Your task to perform on an android device: check battery use Image 0: 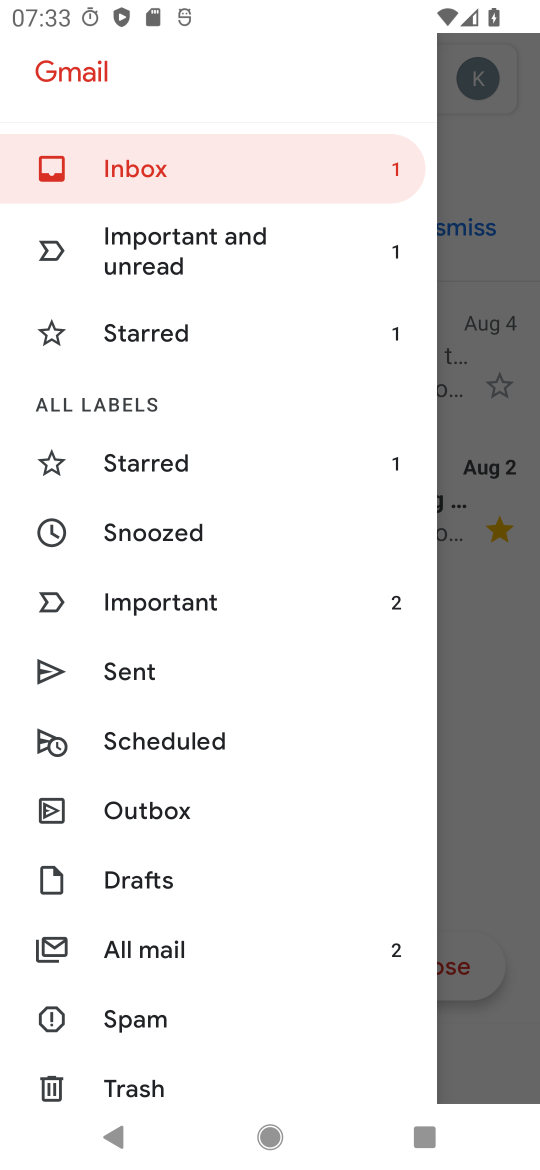
Step 0: press home button
Your task to perform on an android device: check battery use Image 1: 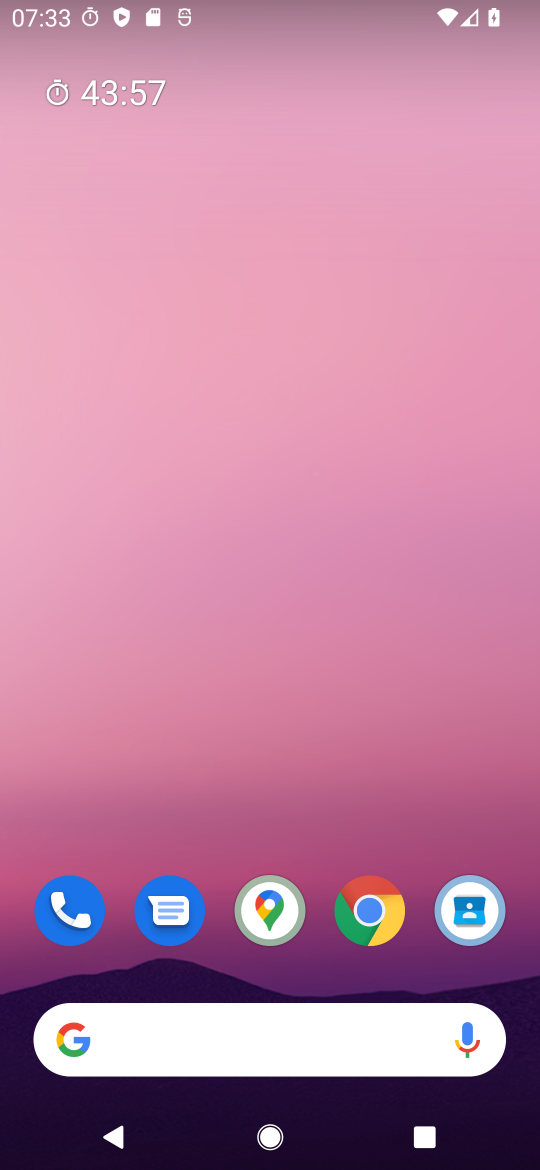
Step 1: drag from (381, 1012) to (108, 503)
Your task to perform on an android device: check battery use Image 2: 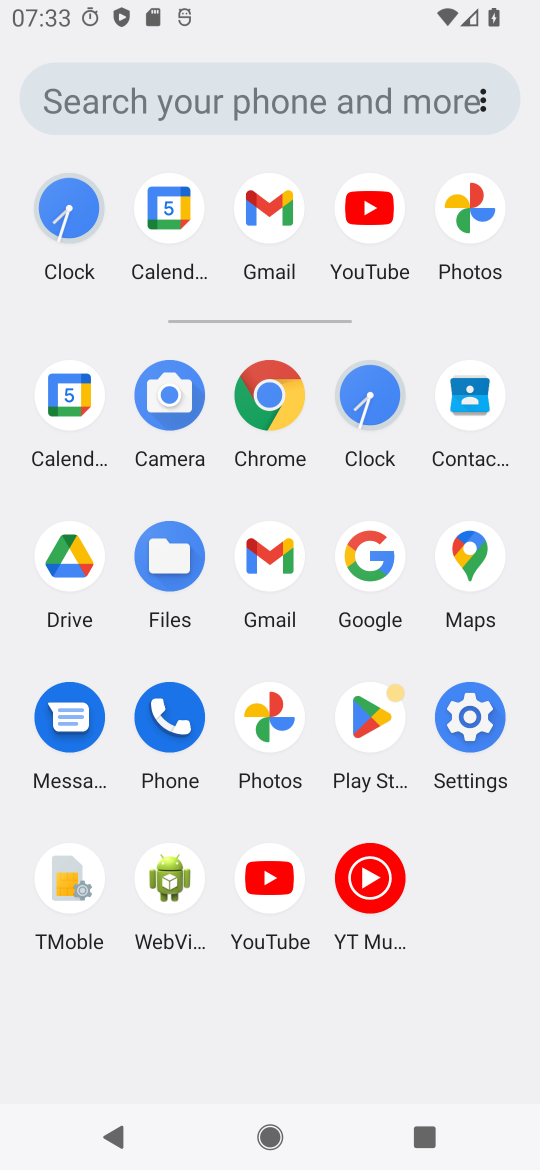
Step 2: click (468, 726)
Your task to perform on an android device: check battery use Image 3: 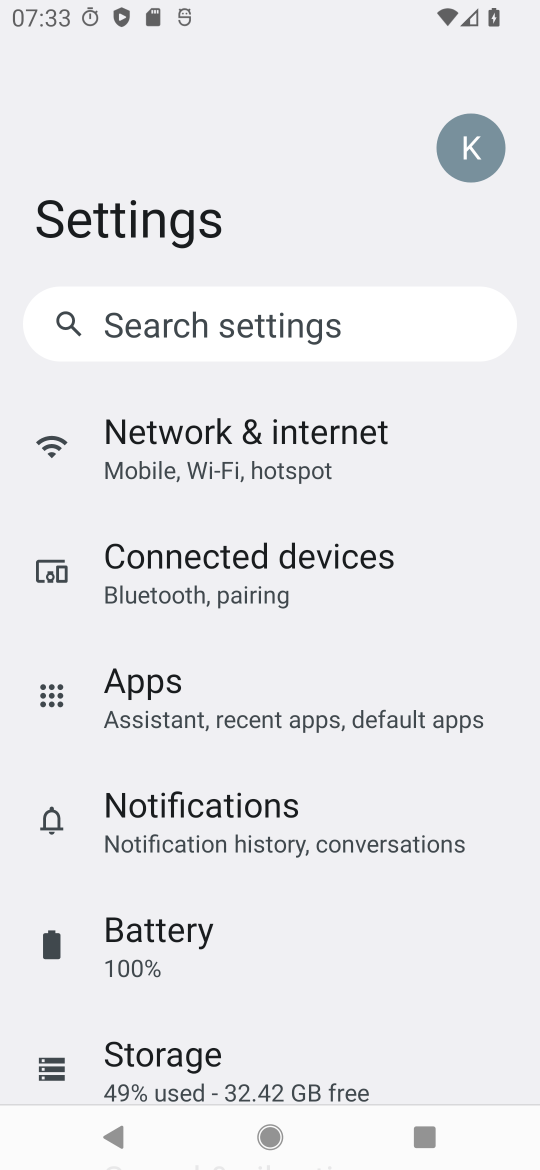
Step 3: click (160, 941)
Your task to perform on an android device: check battery use Image 4: 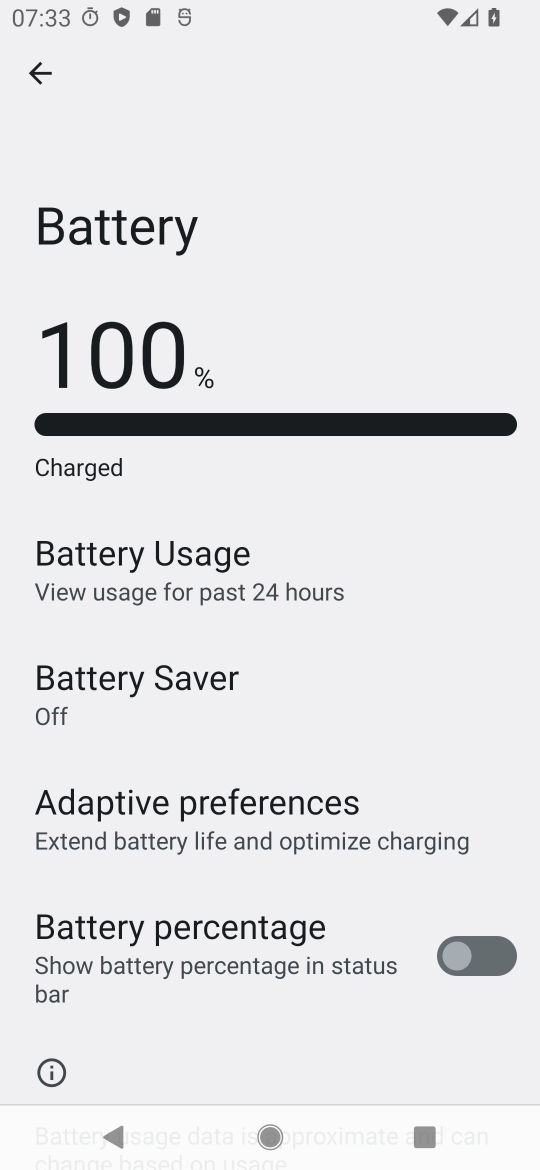
Step 4: task complete